Your task to perform on an android device: set the timer Image 0: 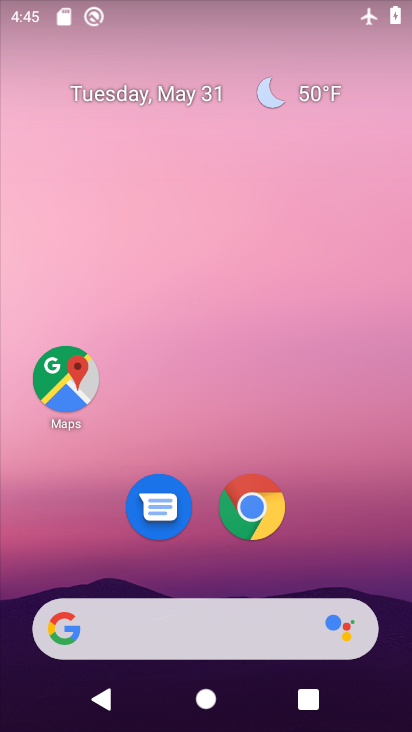
Step 0: drag from (322, 529) to (285, 45)
Your task to perform on an android device: set the timer Image 1: 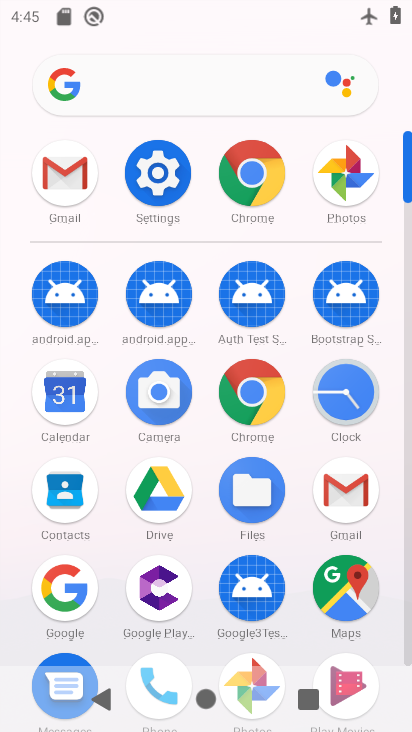
Step 1: click (334, 377)
Your task to perform on an android device: set the timer Image 2: 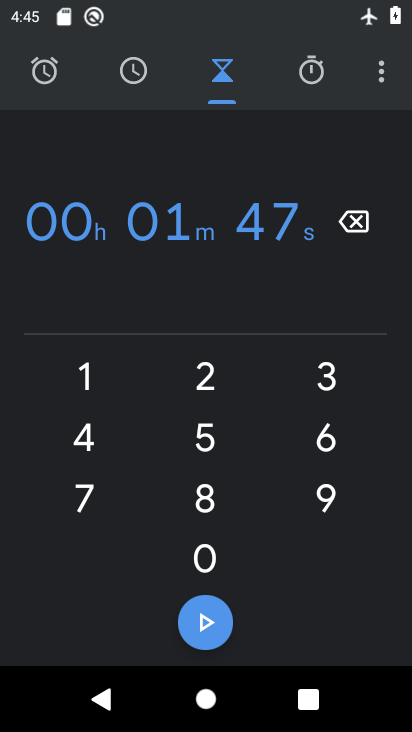
Step 2: click (380, 80)
Your task to perform on an android device: set the timer Image 3: 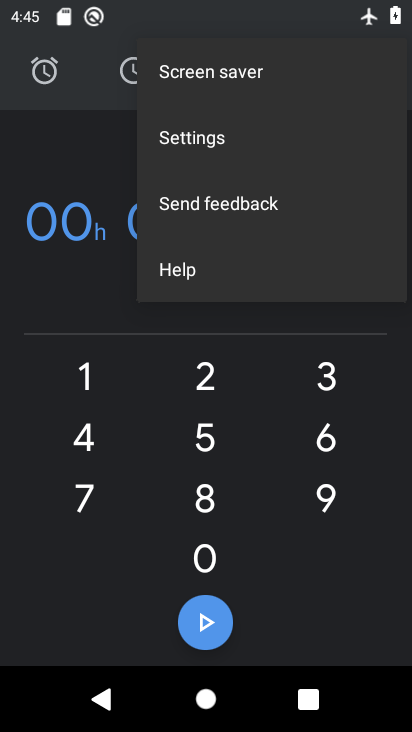
Step 3: click (262, 142)
Your task to perform on an android device: set the timer Image 4: 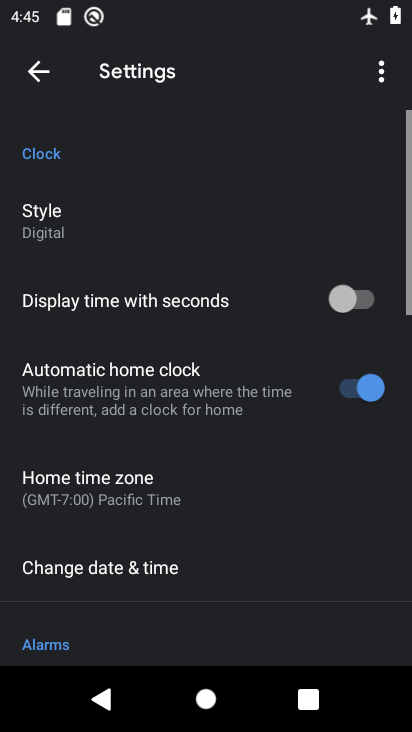
Step 4: drag from (276, 552) to (253, 9)
Your task to perform on an android device: set the timer Image 5: 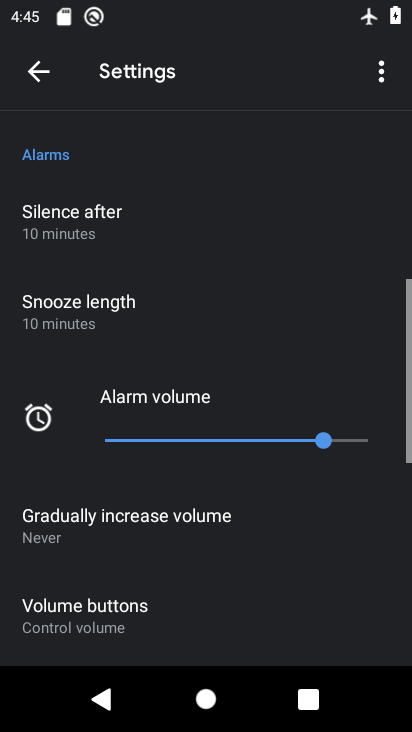
Step 5: drag from (226, 558) to (271, 0)
Your task to perform on an android device: set the timer Image 6: 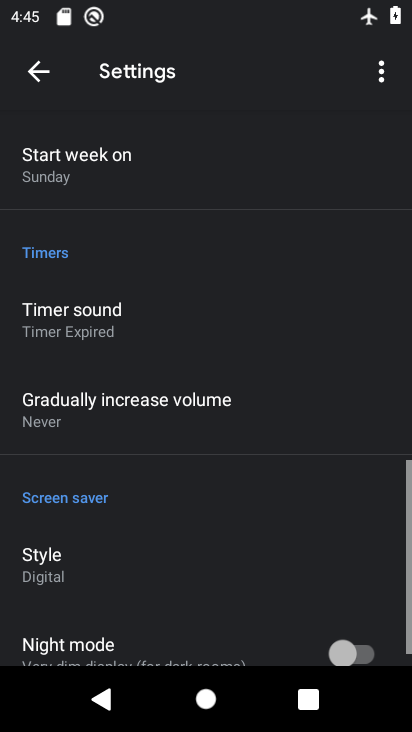
Step 6: drag from (215, 552) to (273, 220)
Your task to perform on an android device: set the timer Image 7: 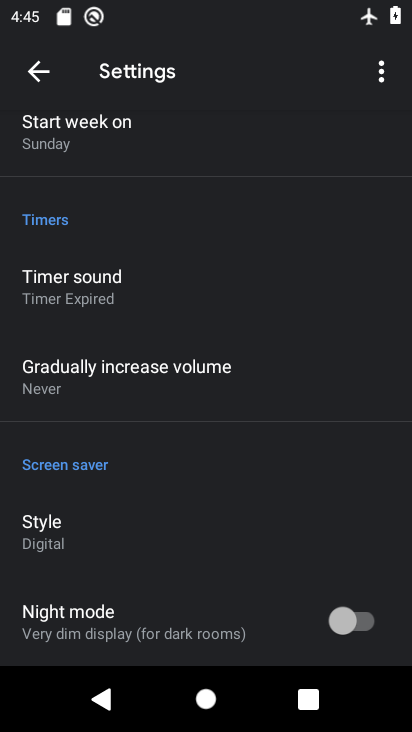
Step 7: click (126, 278)
Your task to perform on an android device: set the timer Image 8: 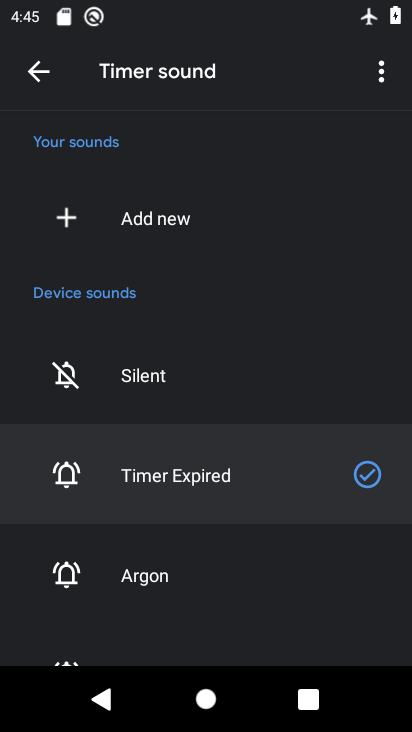
Step 8: click (153, 571)
Your task to perform on an android device: set the timer Image 9: 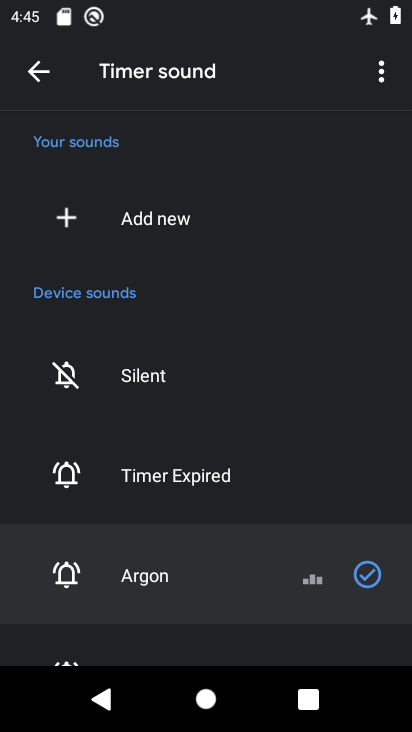
Step 9: task complete